Your task to perform on an android device: uninstall "Microsoft Authenticator" Image 0: 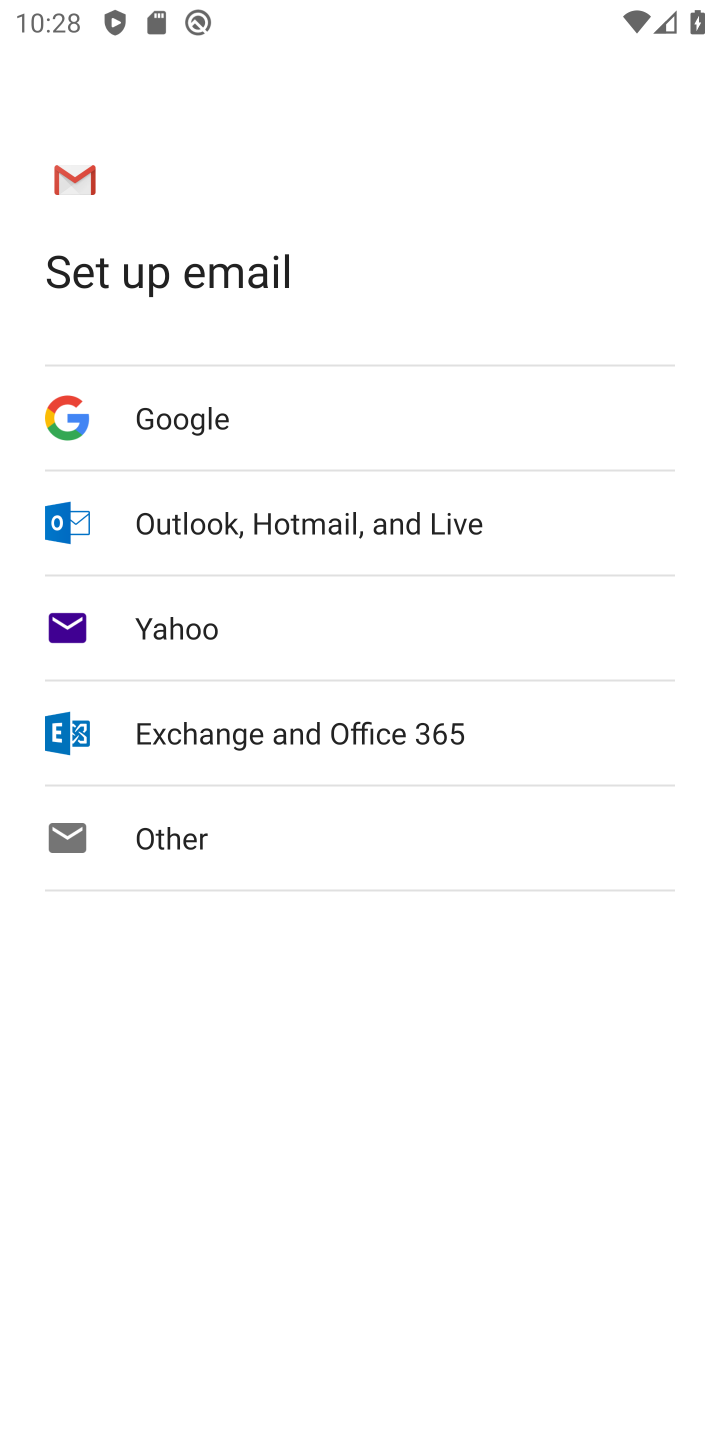
Step 0: press home button
Your task to perform on an android device: uninstall "Microsoft Authenticator" Image 1: 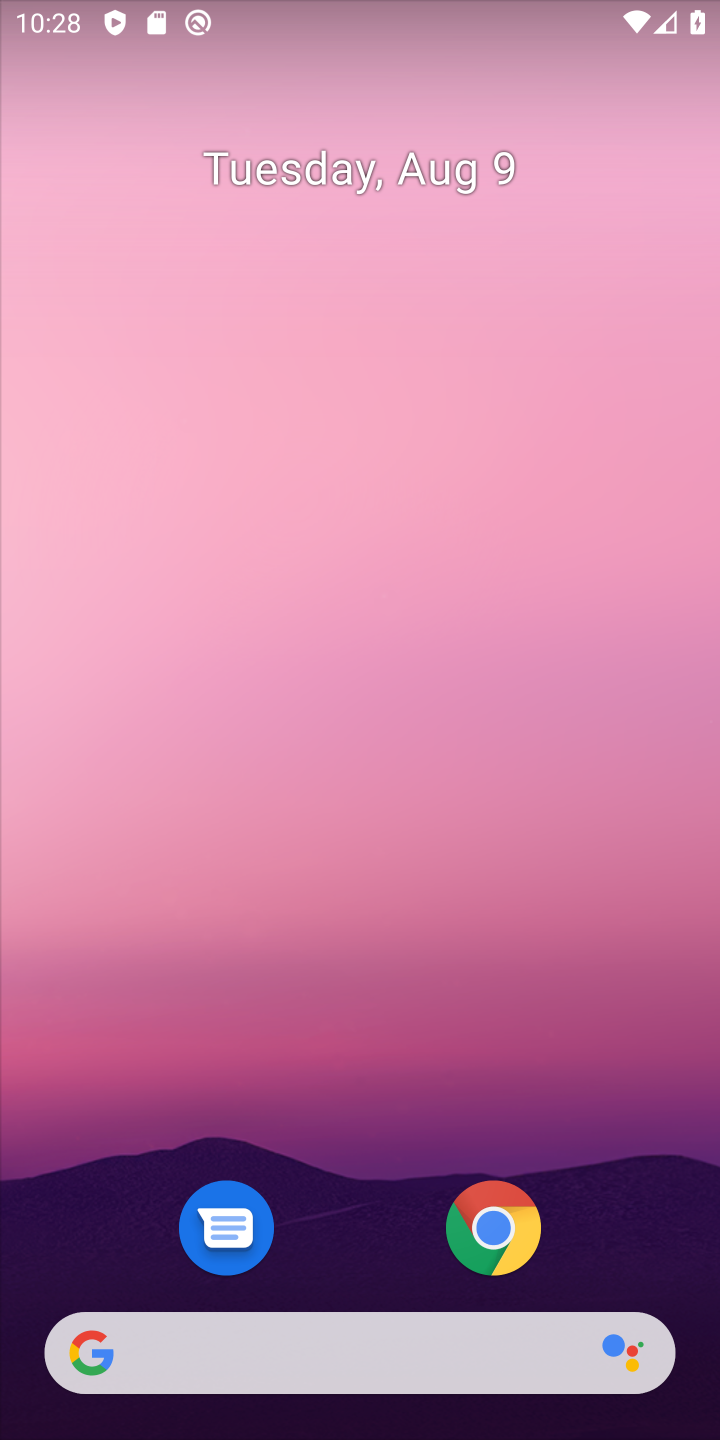
Step 1: drag from (330, 801) to (330, 83)
Your task to perform on an android device: uninstall "Microsoft Authenticator" Image 2: 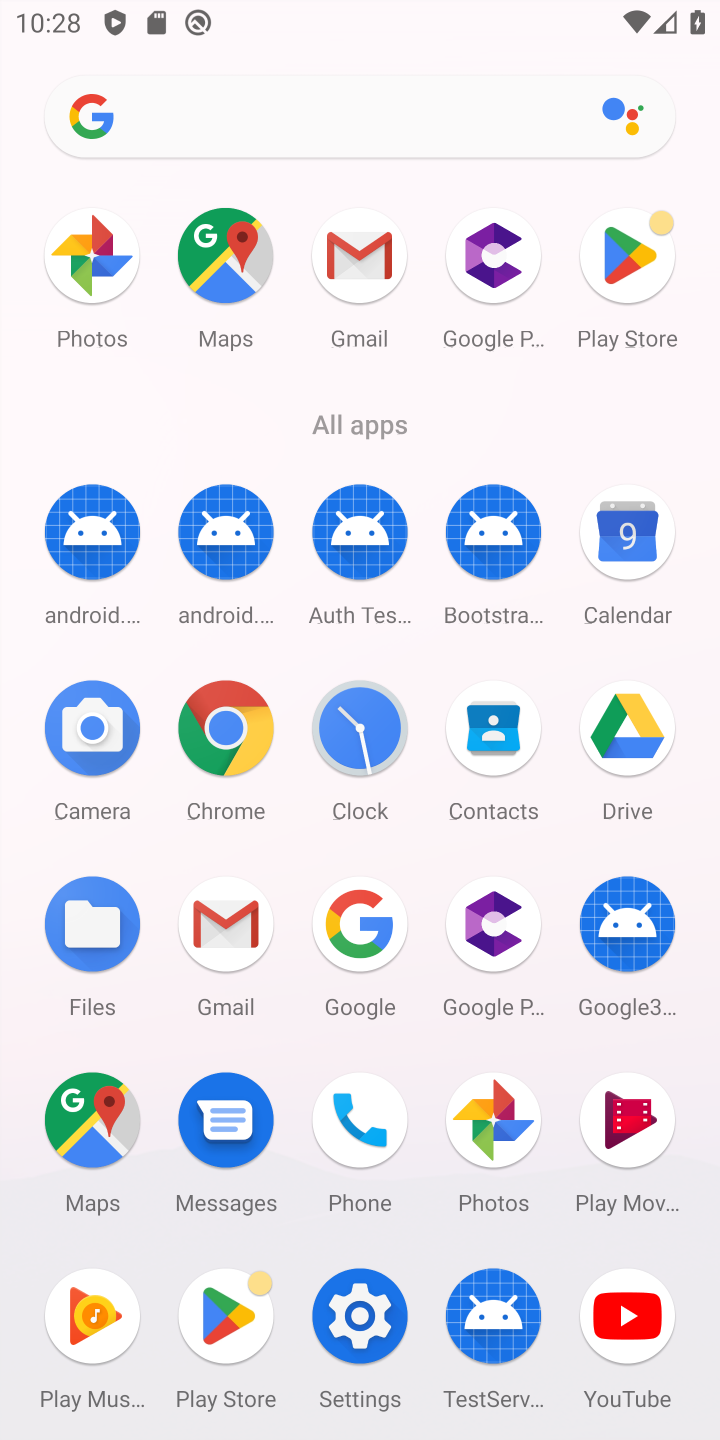
Step 2: click (638, 263)
Your task to perform on an android device: uninstall "Microsoft Authenticator" Image 3: 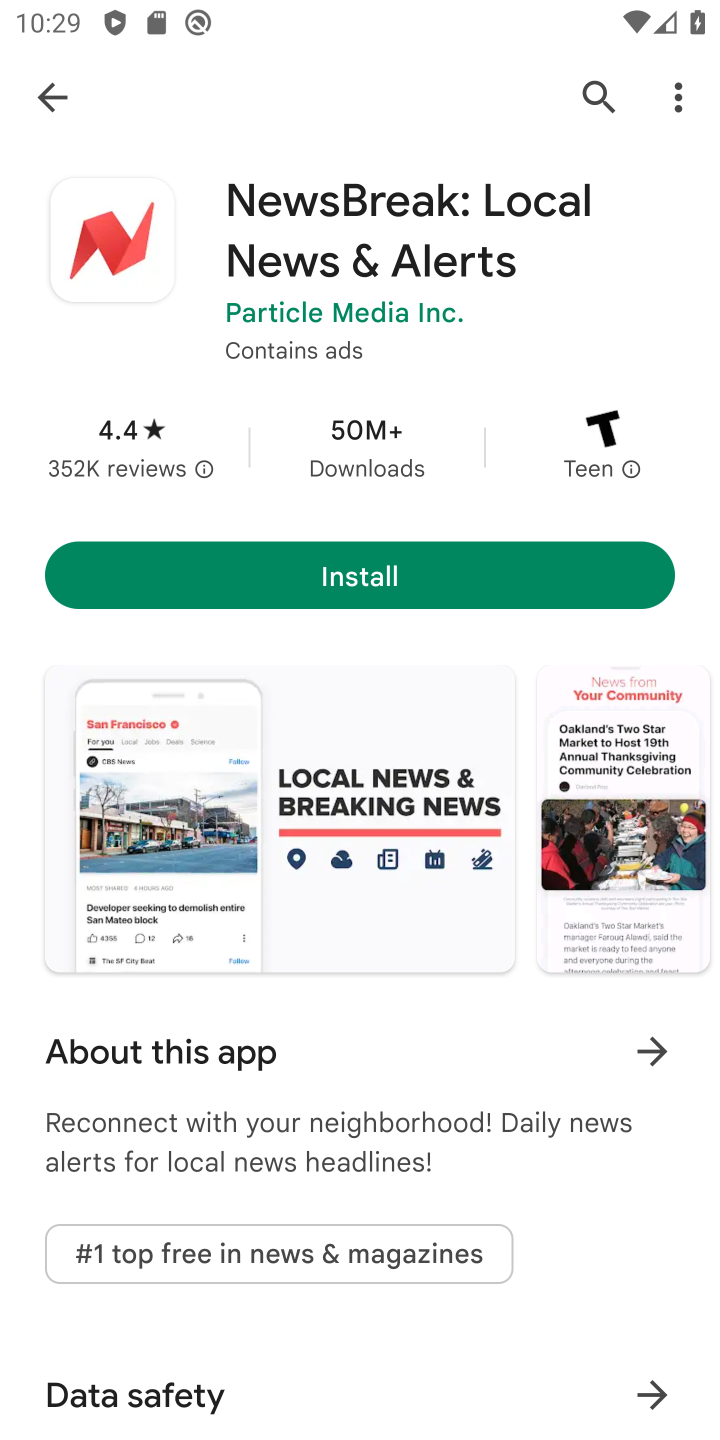
Step 3: click (600, 87)
Your task to perform on an android device: uninstall "Microsoft Authenticator" Image 4: 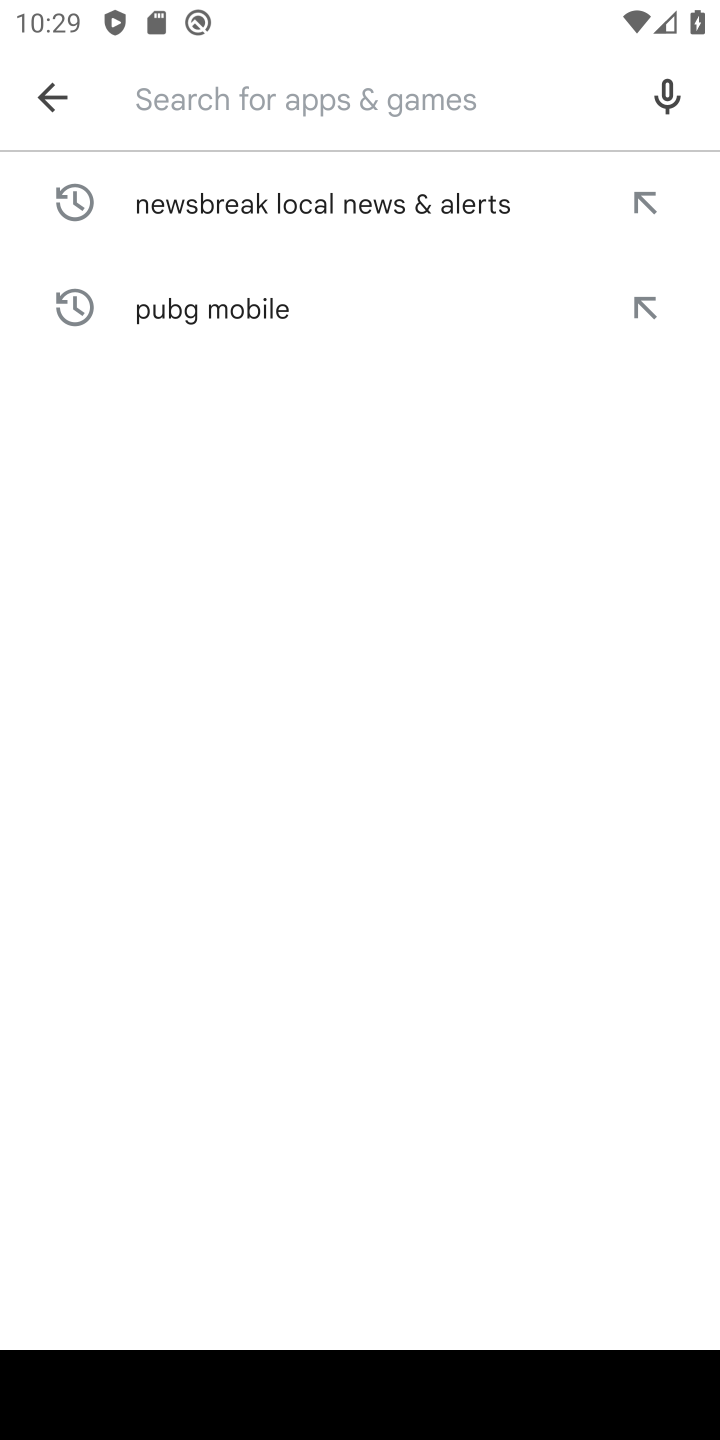
Step 4: type "Microsoft Authenticator"
Your task to perform on an android device: uninstall "Microsoft Authenticator" Image 5: 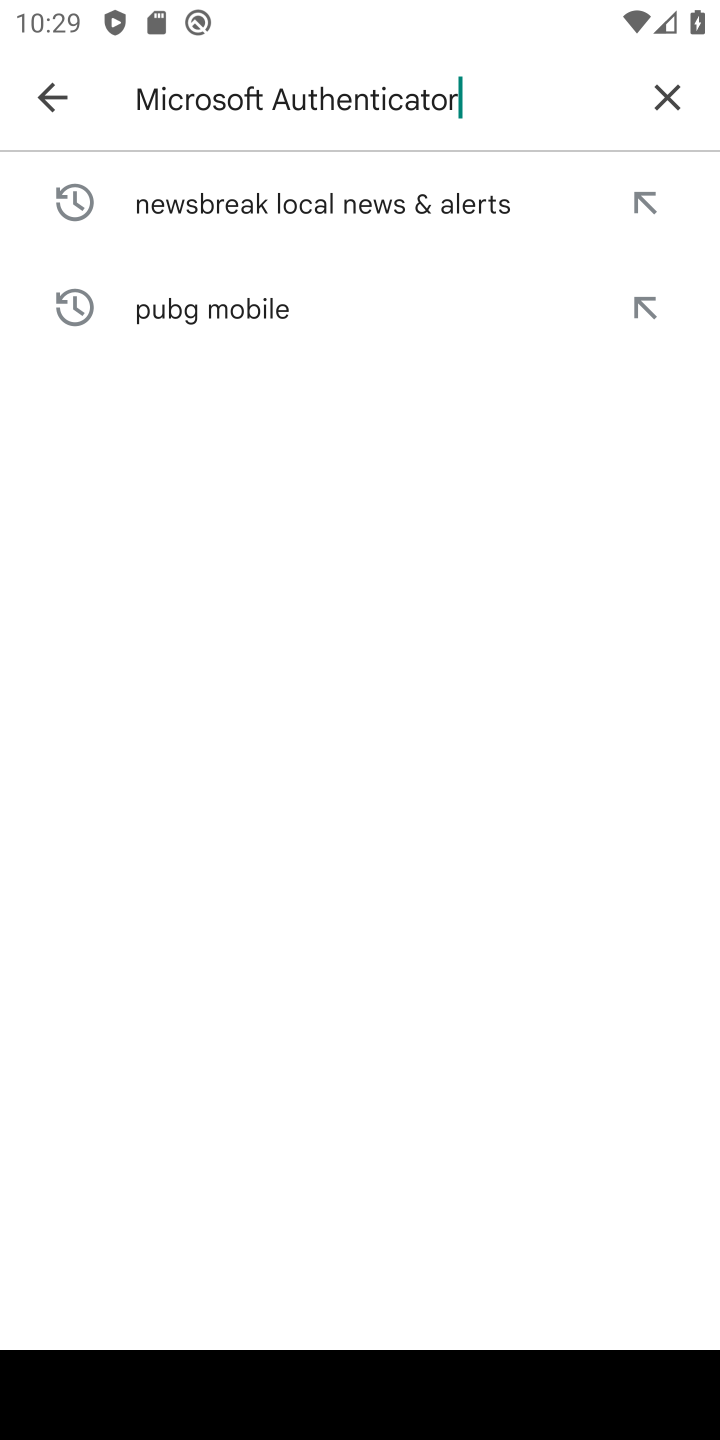
Step 5: type ""
Your task to perform on an android device: uninstall "Microsoft Authenticator" Image 6: 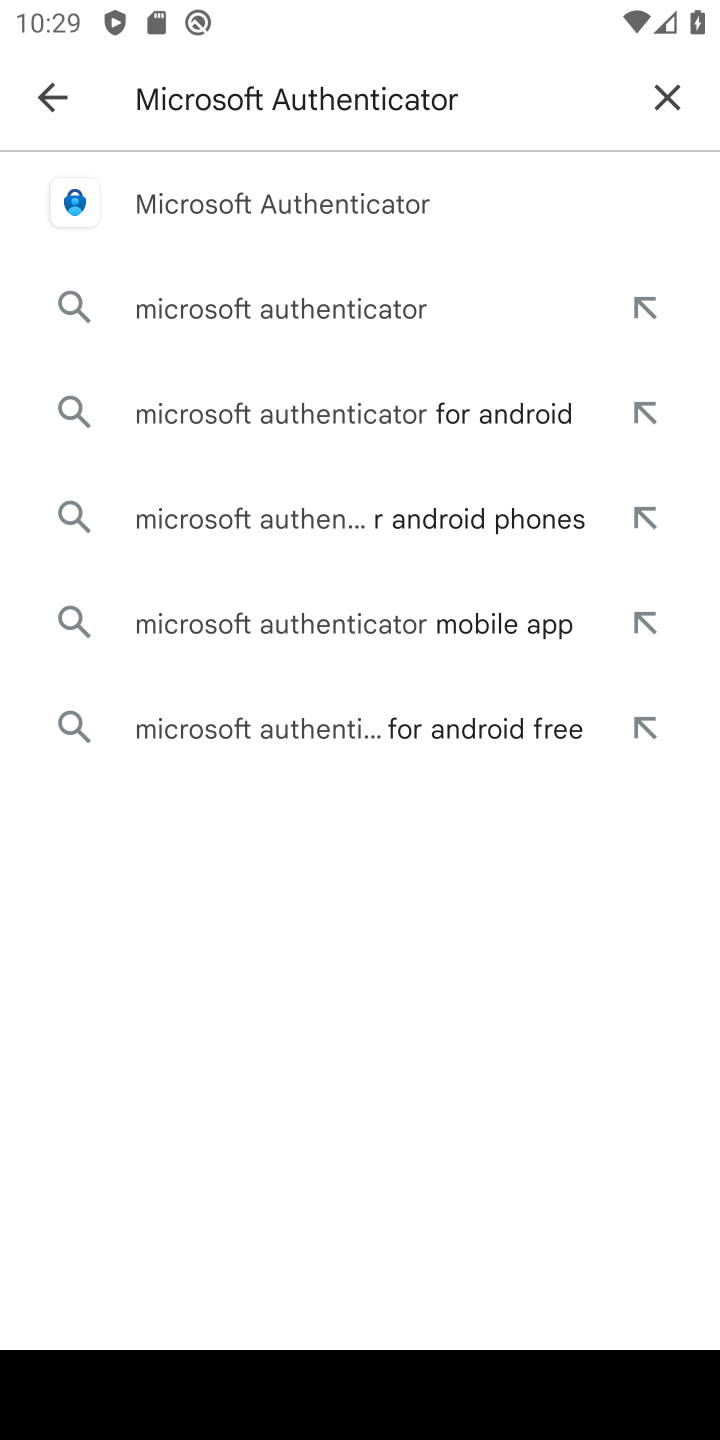
Step 6: click (361, 204)
Your task to perform on an android device: uninstall "Microsoft Authenticator" Image 7: 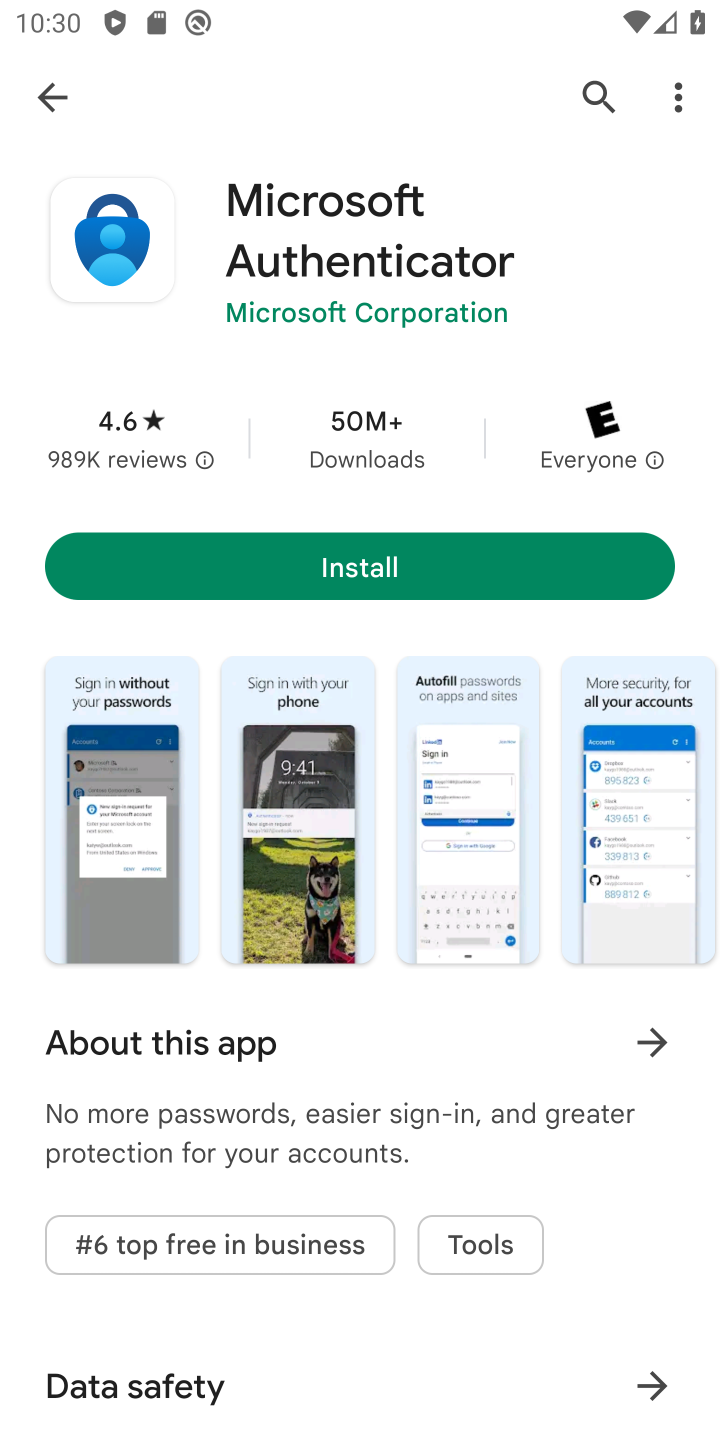
Step 7: task complete